Your task to perform on an android device: Open Google Chrome and click the shortcut for Amazon.com Image 0: 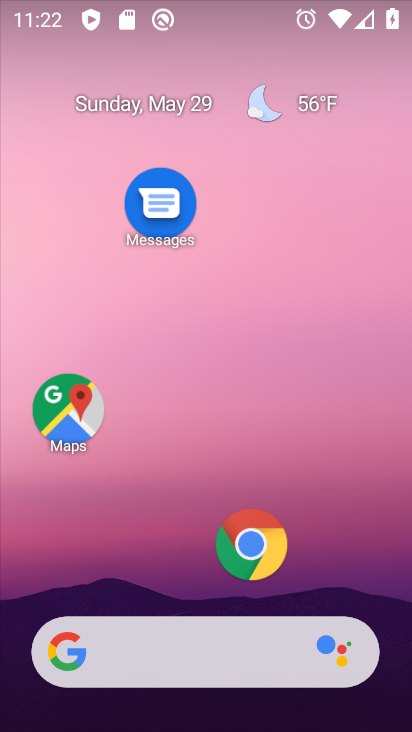
Step 0: click (251, 536)
Your task to perform on an android device: Open Google Chrome and click the shortcut for Amazon.com Image 1: 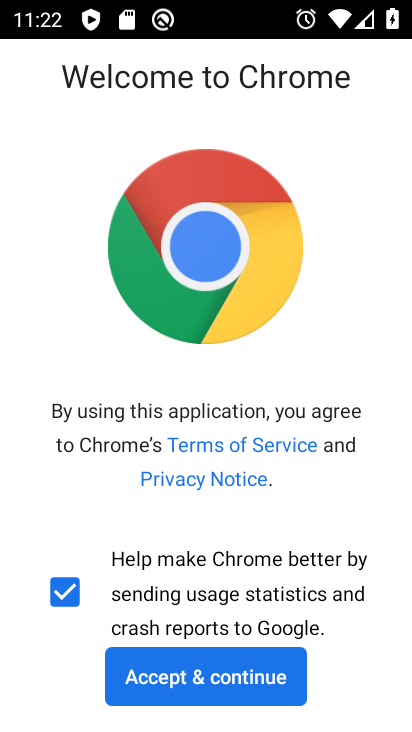
Step 1: click (193, 678)
Your task to perform on an android device: Open Google Chrome and click the shortcut for Amazon.com Image 2: 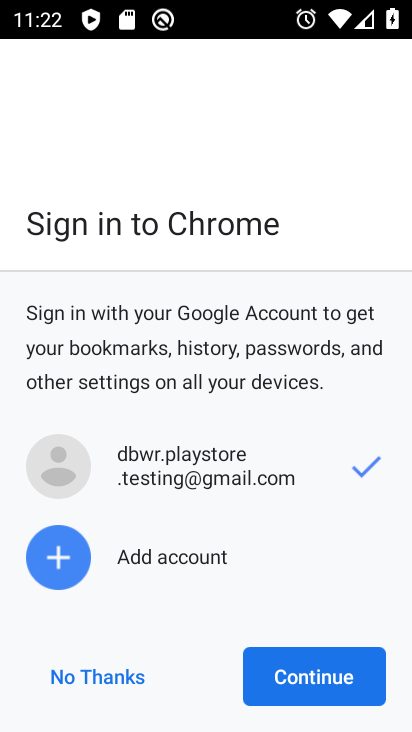
Step 2: click (309, 683)
Your task to perform on an android device: Open Google Chrome and click the shortcut for Amazon.com Image 3: 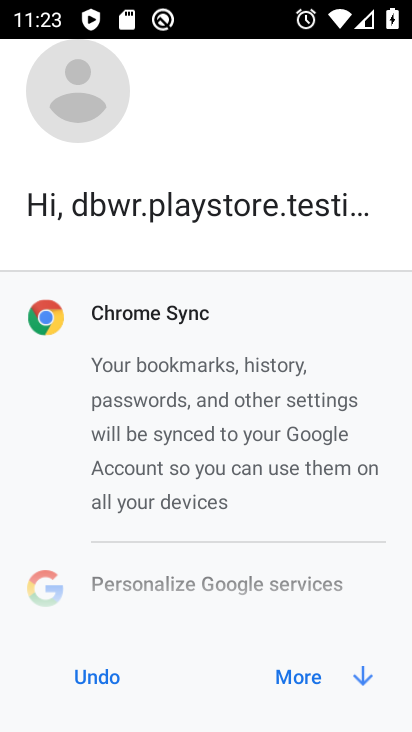
Step 3: click (314, 680)
Your task to perform on an android device: Open Google Chrome and click the shortcut for Amazon.com Image 4: 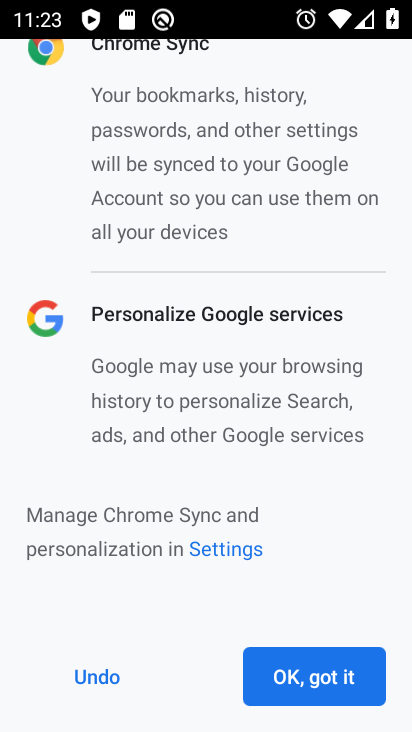
Step 4: click (314, 680)
Your task to perform on an android device: Open Google Chrome and click the shortcut for Amazon.com Image 5: 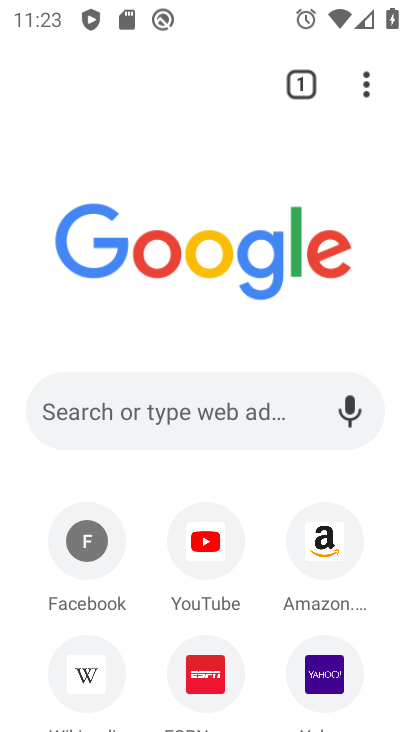
Step 5: click (334, 530)
Your task to perform on an android device: Open Google Chrome and click the shortcut for Amazon.com Image 6: 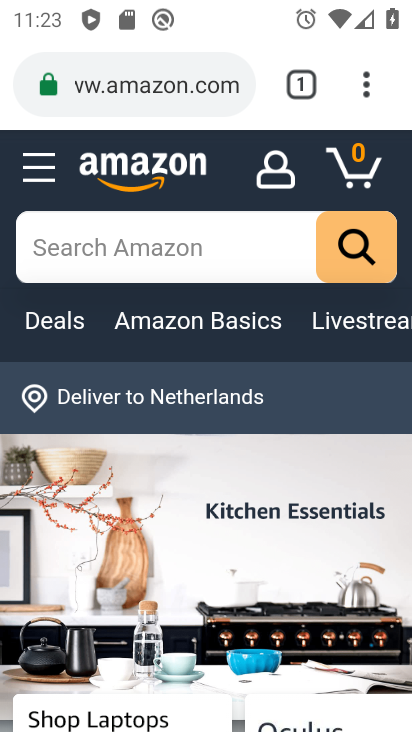
Step 6: task complete